Your task to perform on an android device: See recent photos Image 0: 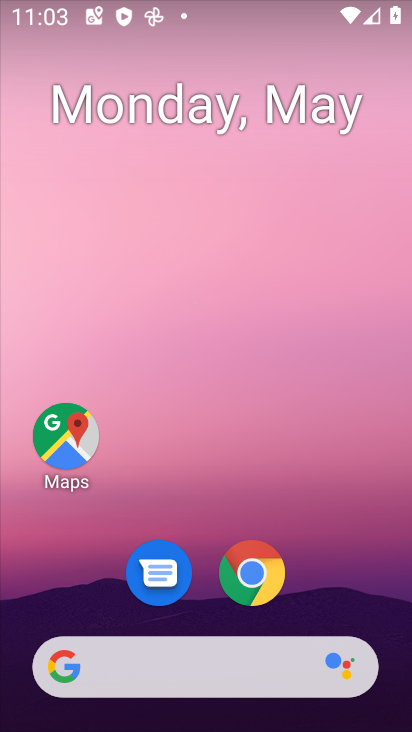
Step 0: drag from (356, 570) to (329, 36)
Your task to perform on an android device: See recent photos Image 1: 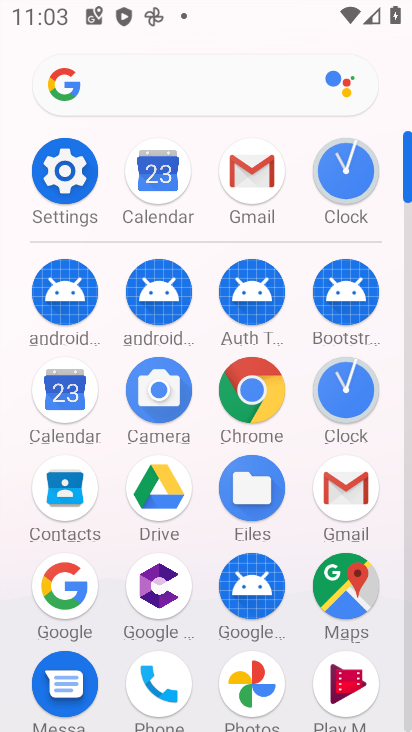
Step 1: click (252, 684)
Your task to perform on an android device: See recent photos Image 2: 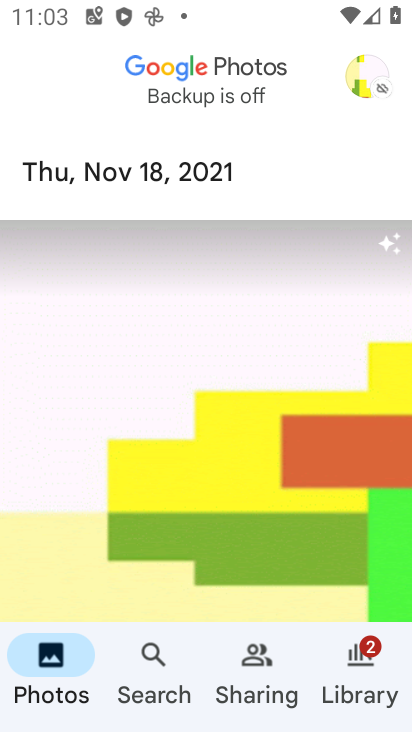
Step 2: click (355, 672)
Your task to perform on an android device: See recent photos Image 3: 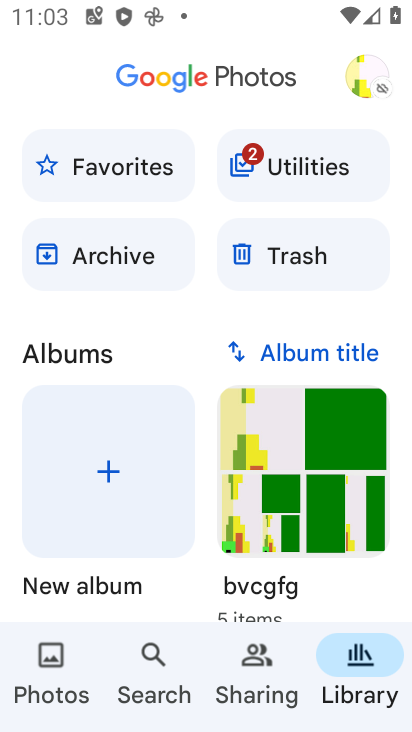
Step 3: click (101, 241)
Your task to perform on an android device: See recent photos Image 4: 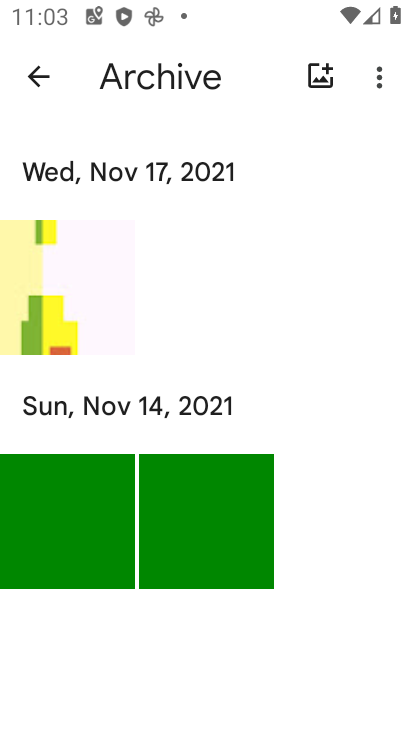
Step 4: task complete